Your task to perform on an android device: Show me the alarms in the clock app Image 0: 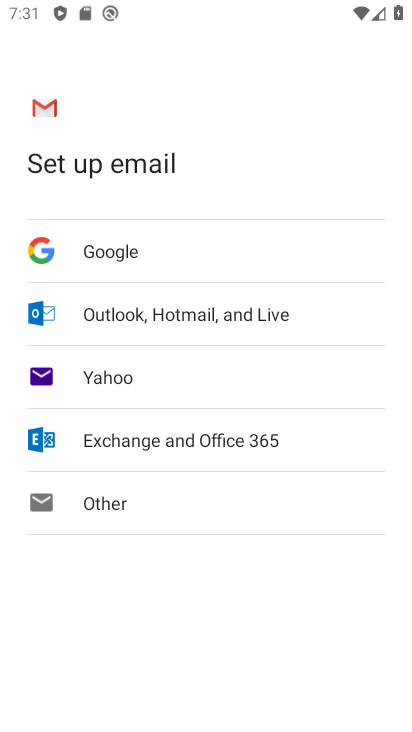
Step 0: click (148, 582)
Your task to perform on an android device: Show me the alarms in the clock app Image 1: 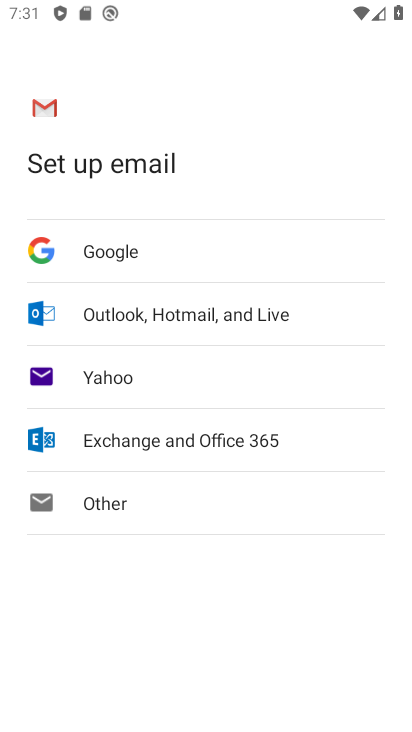
Step 1: press home button
Your task to perform on an android device: Show me the alarms in the clock app Image 2: 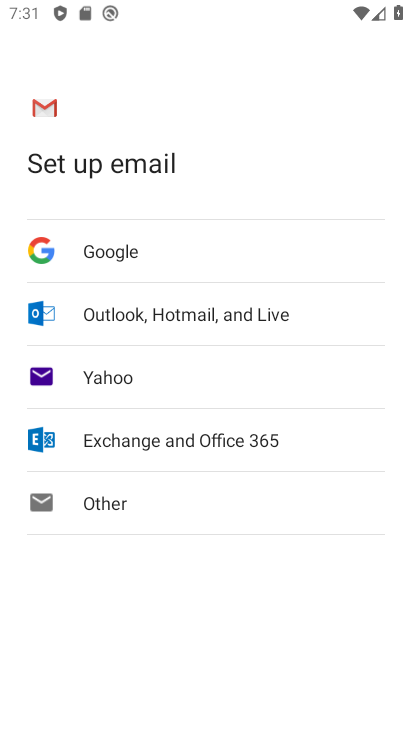
Step 2: press home button
Your task to perform on an android device: Show me the alarms in the clock app Image 3: 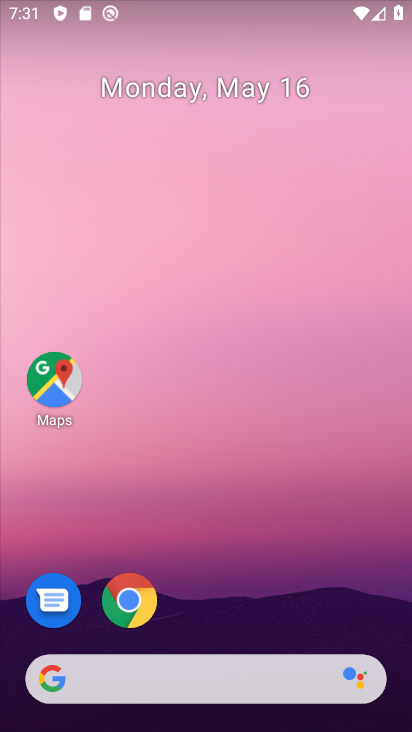
Step 3: drag from (231, 606) to (108, 0)
Your task to perform on an android device: Show me the alarms in the clock app Image 4: 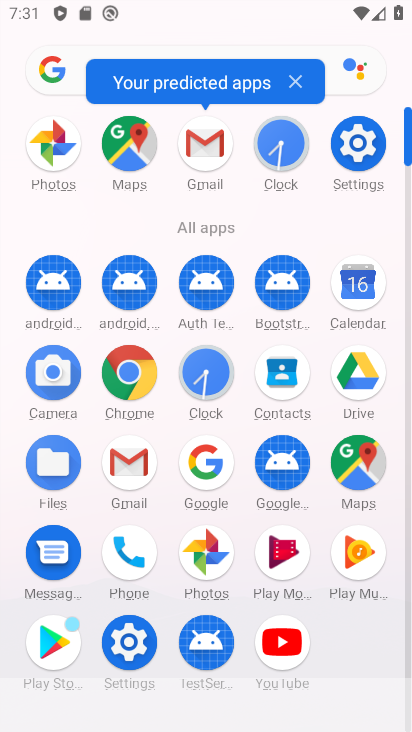
Step 4: drag from (176, 292) to (266, 12)
Your task to perform on an android device: Show me the alarms in the clock app Image 5: 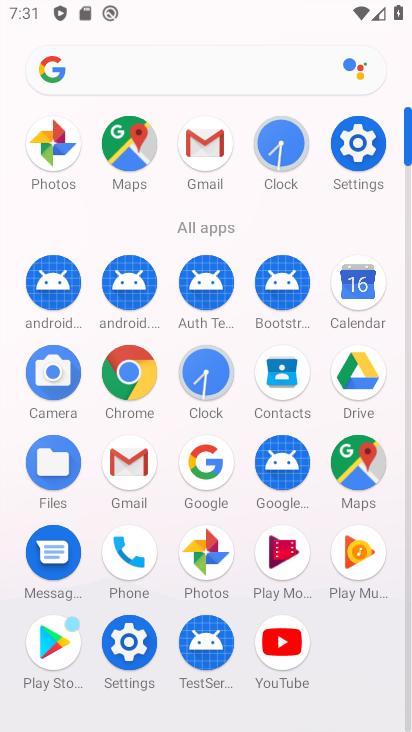
Step 5: click (197, 365)
Your task to perform on an android device: Show me the alarms in the clock app Image 6: 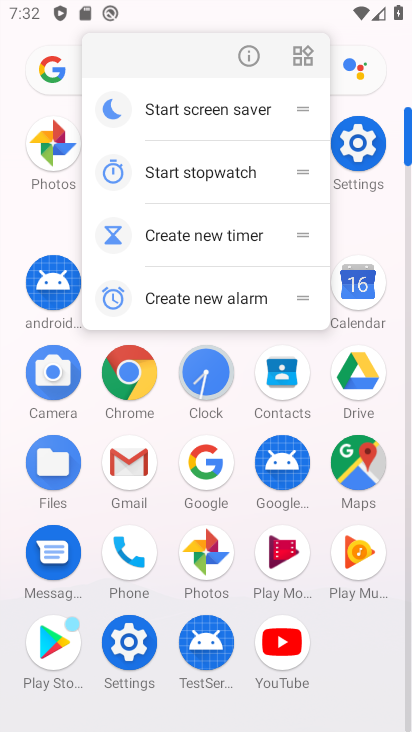
Step 6: click (252, 55)
Your task to perform on an android device: Show me the alarms in the clock app Image 7: 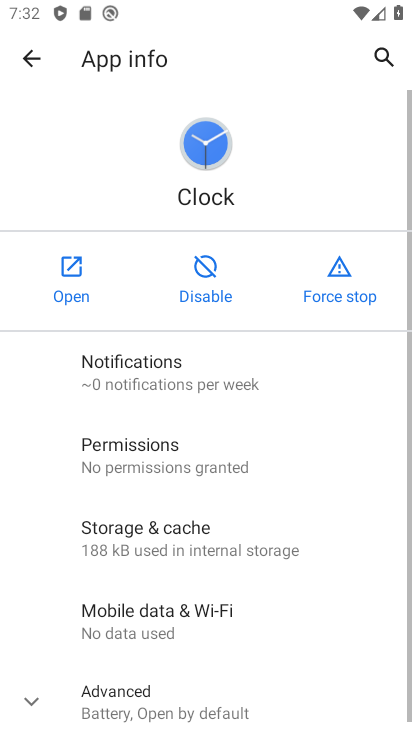
Step 7: click (79, 260)
Your task to perform on an android device: Show me the alarms in the clock app Image 8: 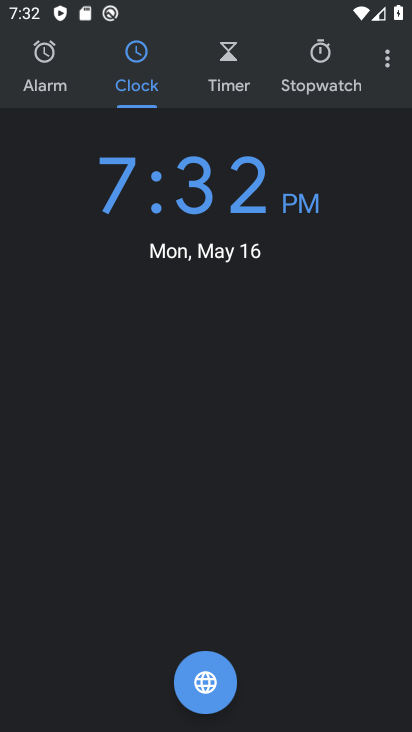
Step 8: click (59, 101)
Your task to perform on an android device: Show me the alarms in the clock app Image 9: 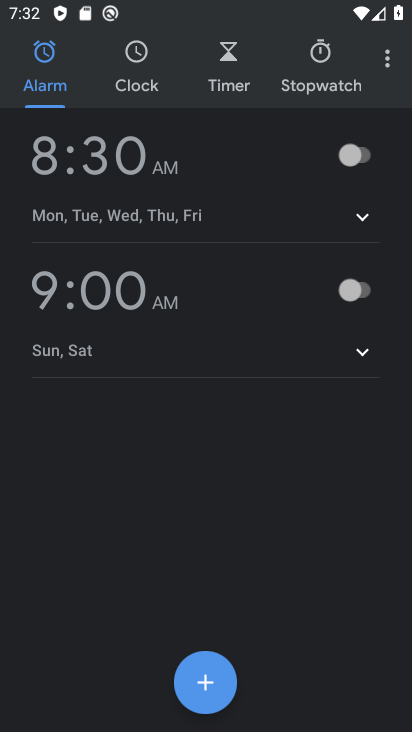
Step 9: task complete